Your task to perform on an android device: Search for flights from NYC to Chicago Image 0: 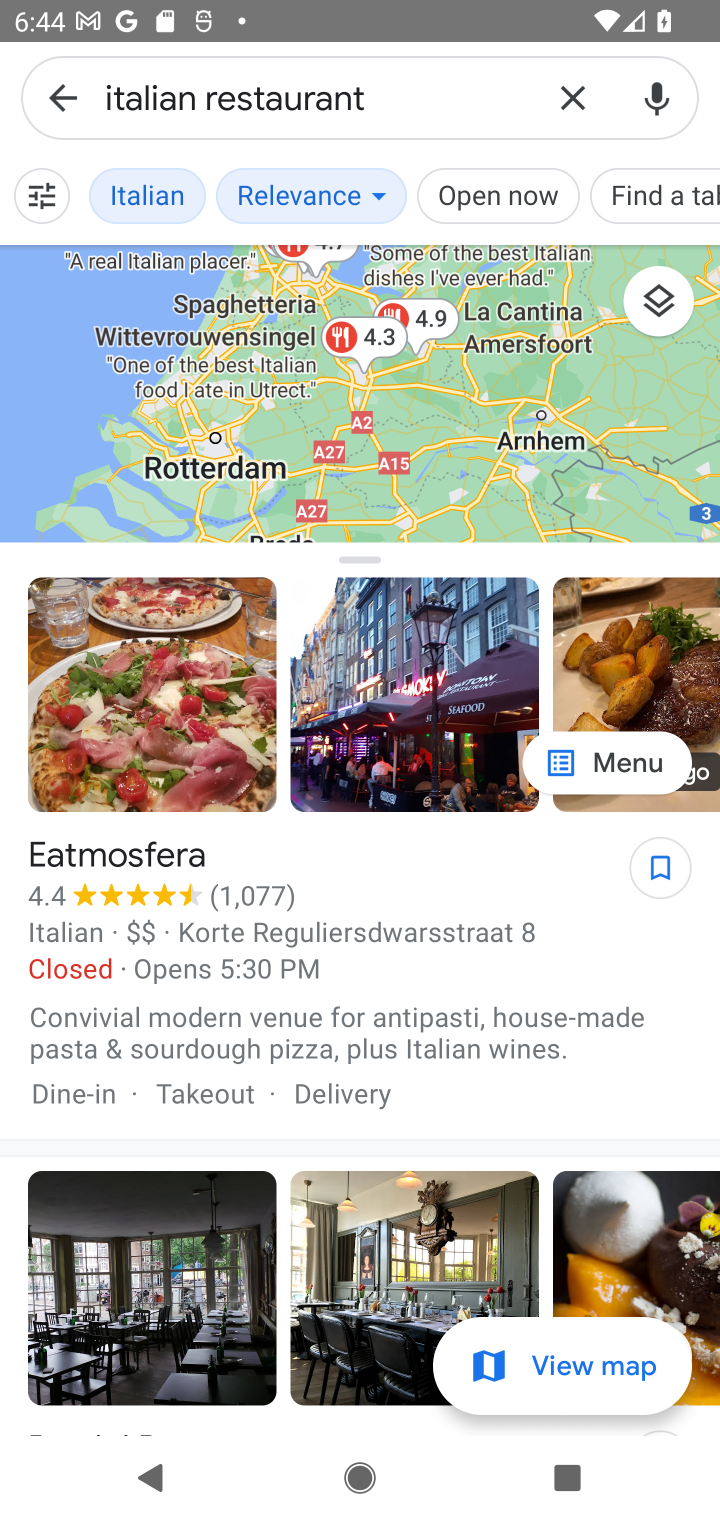
Step 0: press home button
Your task to perform on an android device: Search for flights from NYC to Chicago Image 1: 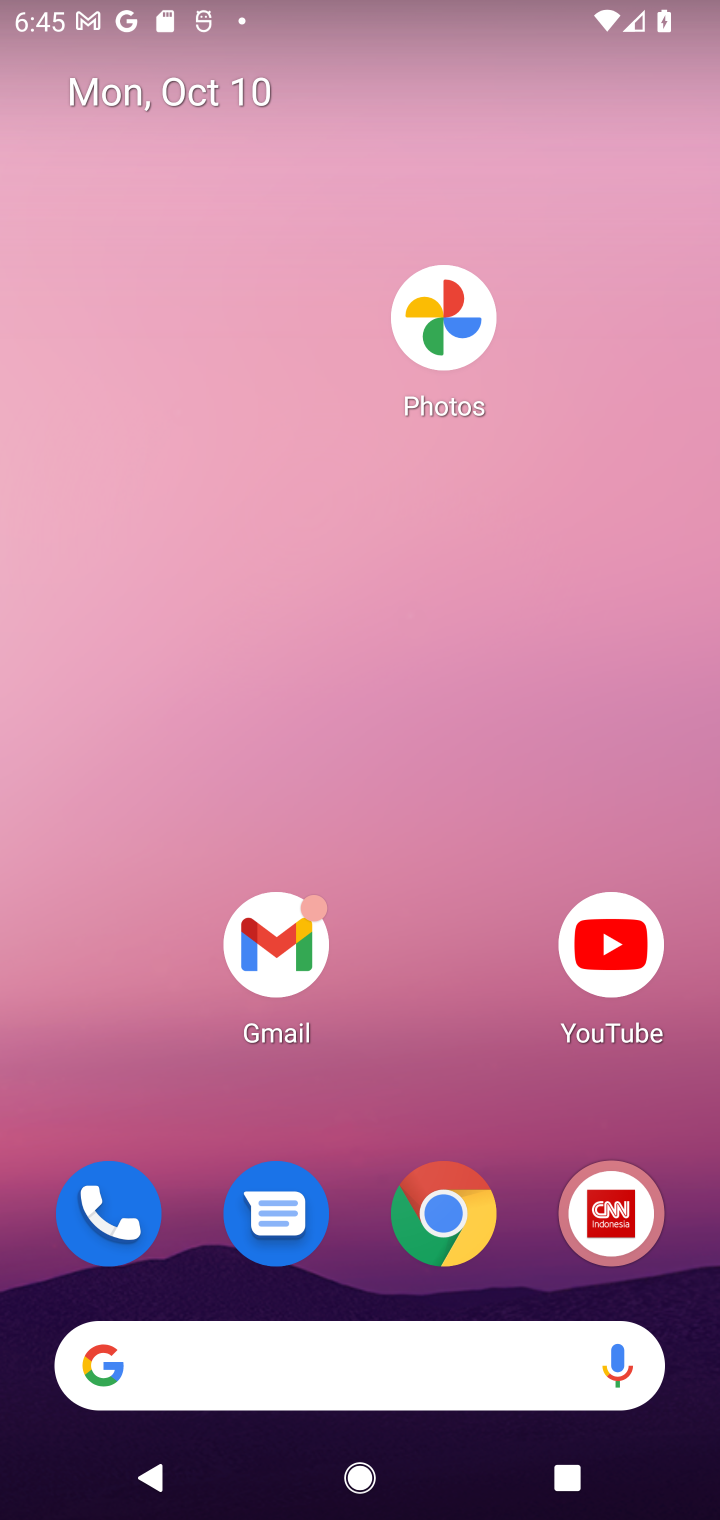
Step 1: click (338, 1344)
Your task to perform on an android device: Search for flights from NYC to Chicago Image 2: 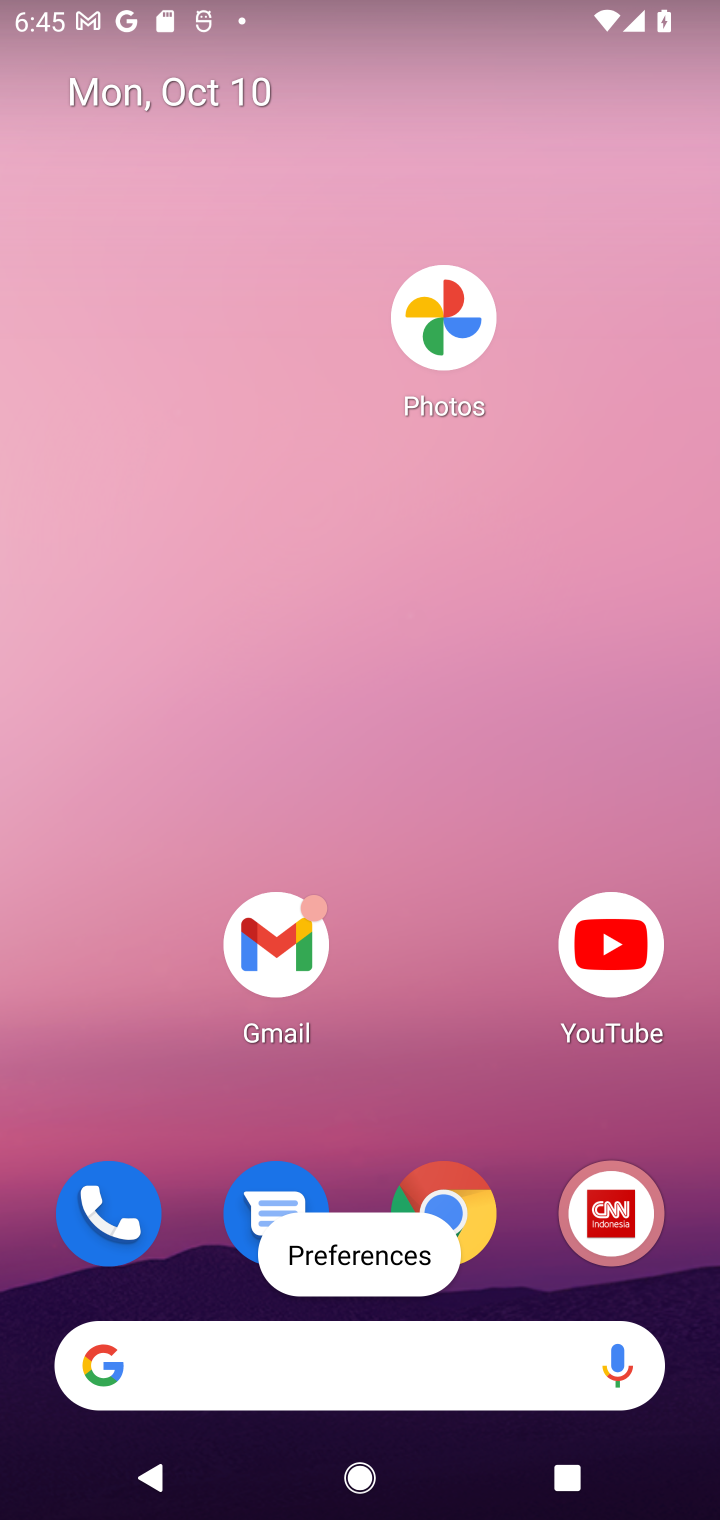
Step 2: click (321, 1359)
Your task to perform on an android device: Search for flights from NYC to Chicago Image 3: 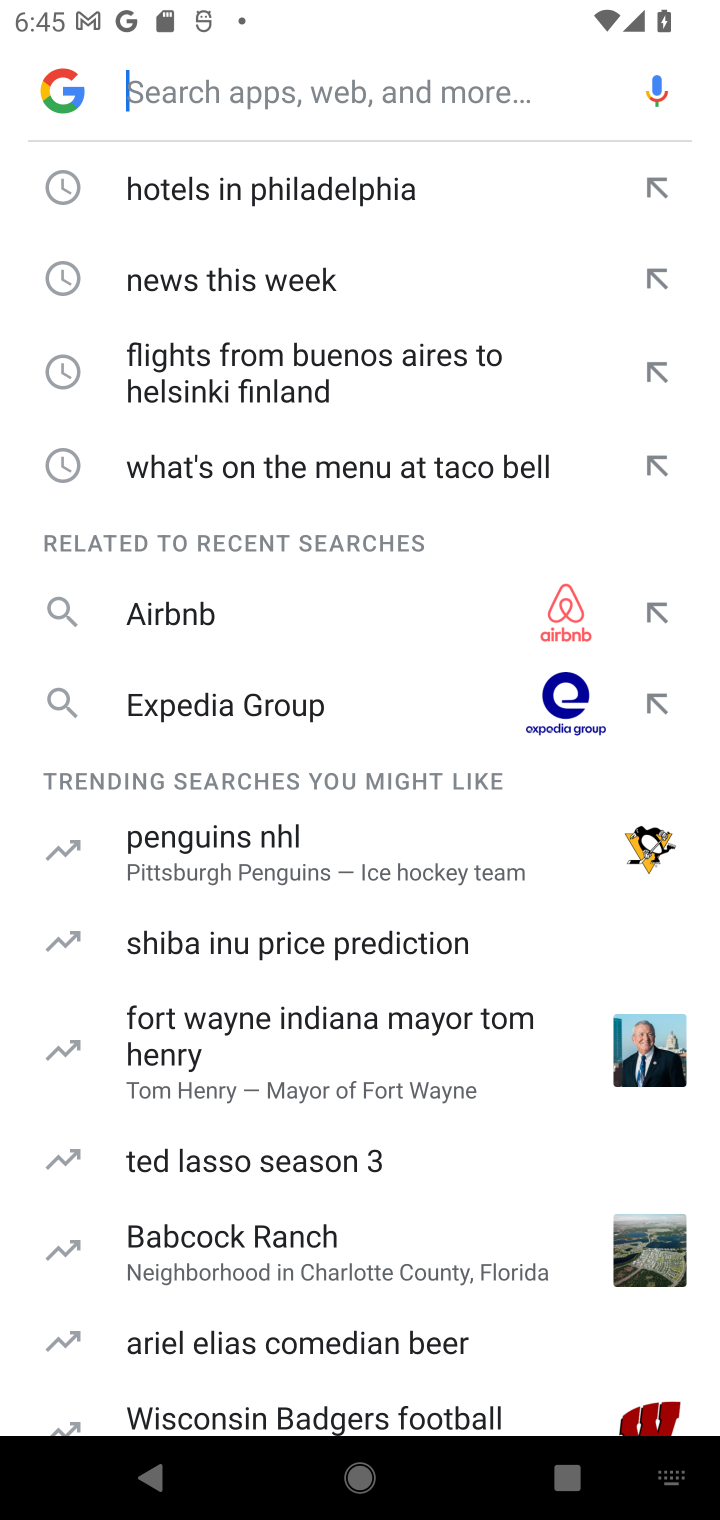
Step 3: type "flights from NYC to Chicago"
Your task to perform on an android device: Search for flights from NYC to Chicago Image 4: 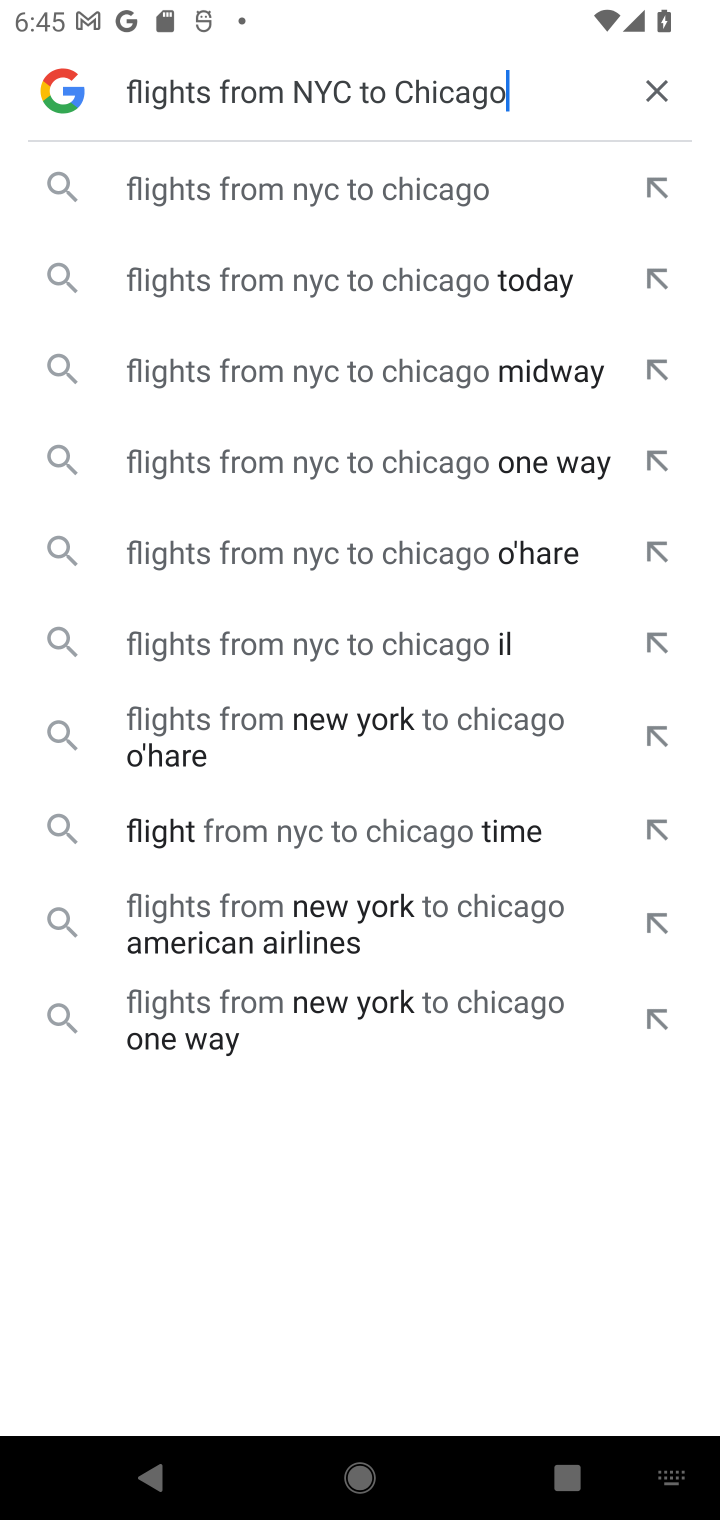
Step 4: click (429, 203)
Your task to perform on an android device: Search for flights from NYC to Chicago Image 5: 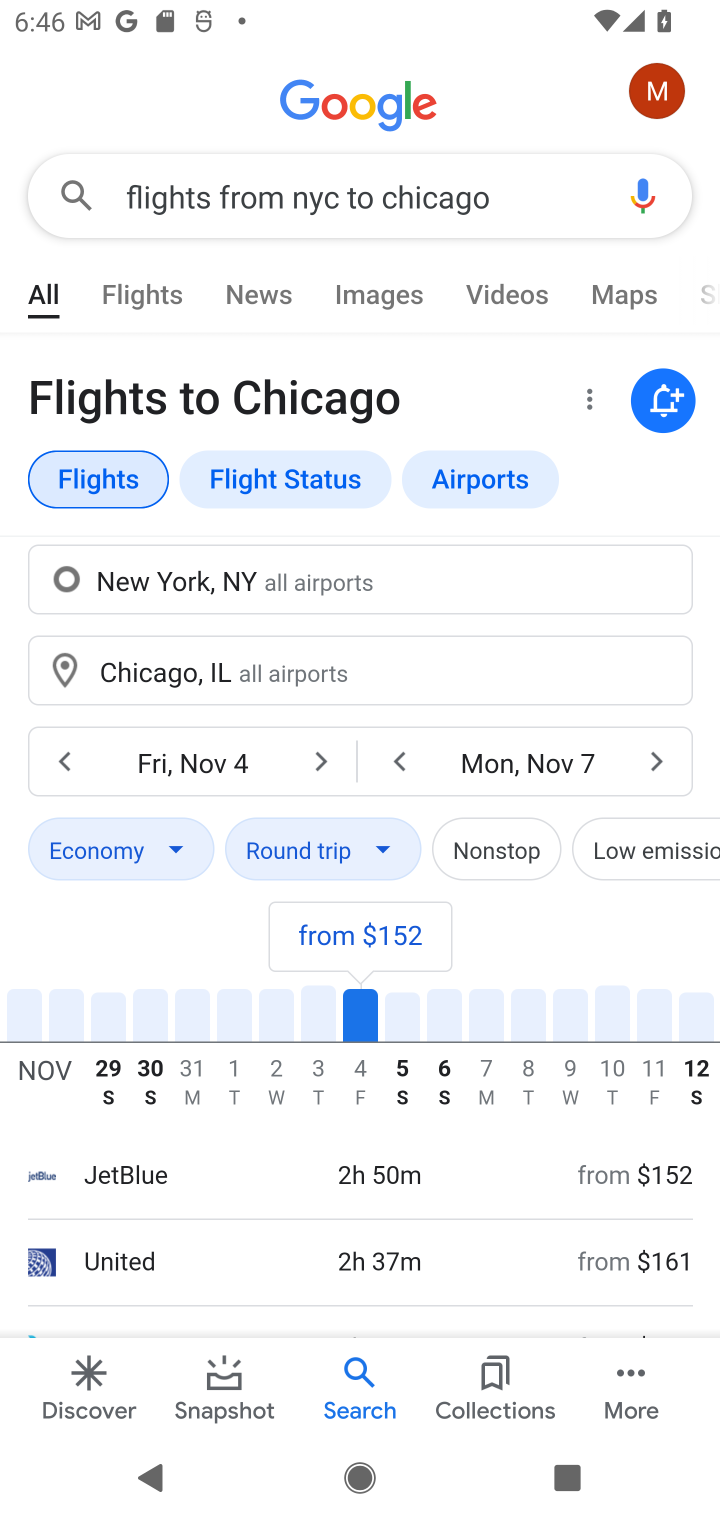
Step 5: task complete